Your task to perform on an android device: toggle translation in the chrome app Image 0: 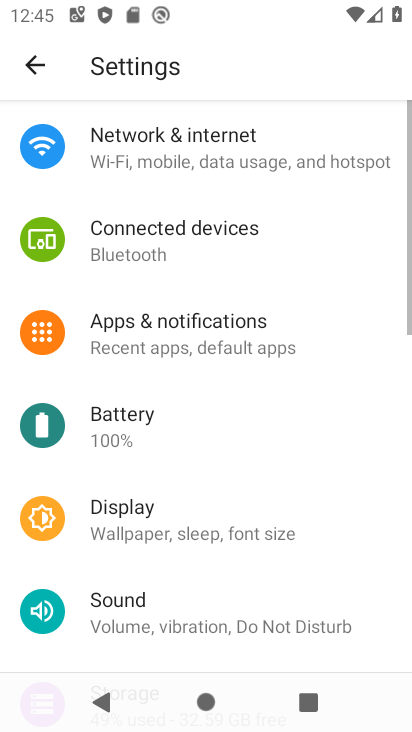
Step 0: press home button
Your task to perform on an android device: toggle translation in the chrome app Image 1: 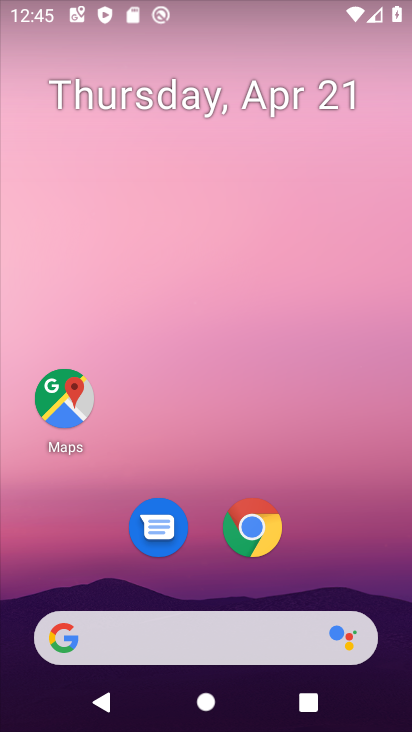
Step 1: drag from (318, 553) to (330, 59)
Your task to perform on an android device: toggle translation in the chrome app Image 2: 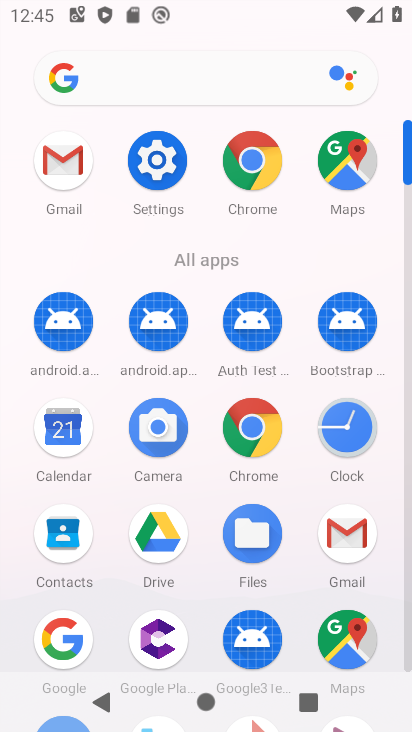
Step 2: click (240, 436)
Your task to perform on an android device: toggle translation in the chrome app Image 3: 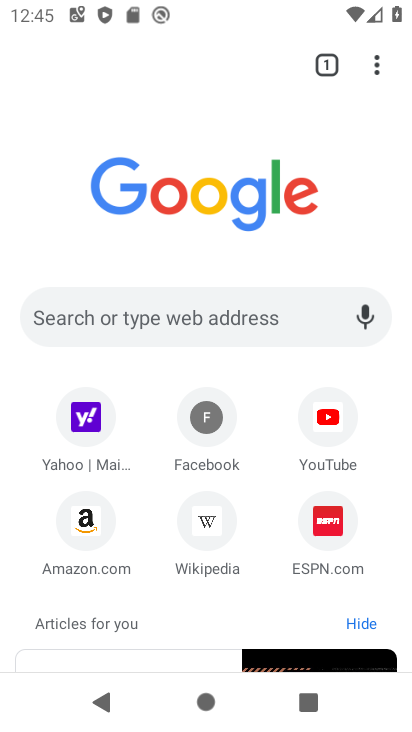
Step 3: click (376, 61)
Your task to perform on an android device: toggle translation in the chrome app Image 4: 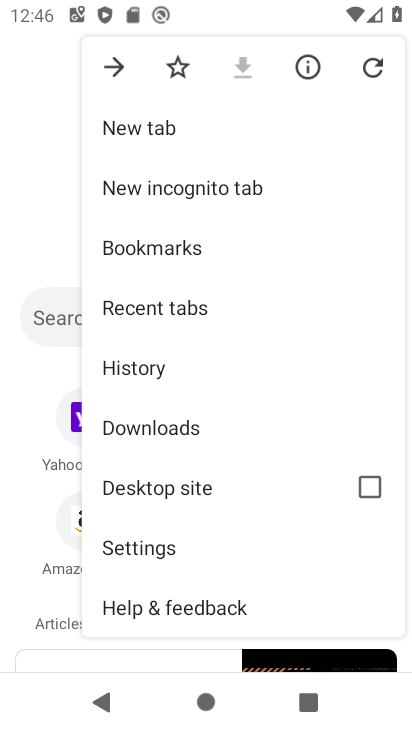
Step 4: click (164, 556)
Your task to perform on an android device: toggle translation in the chrome app Image 5: 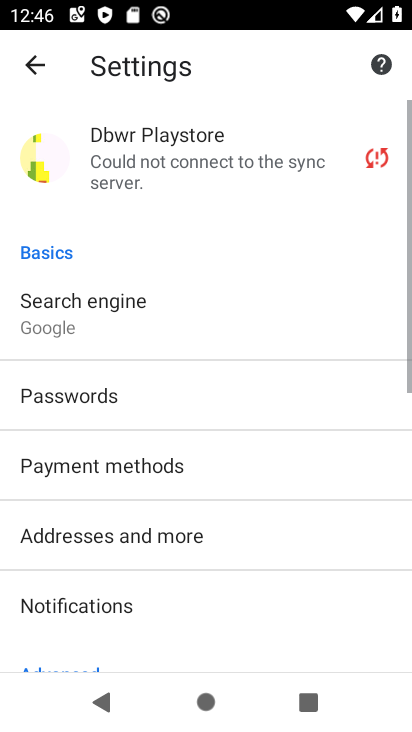
Step 5: drag from (278, 573) to (299, 401)
Your task to perform on an android device: toggle translation in the chrome app Image 6: 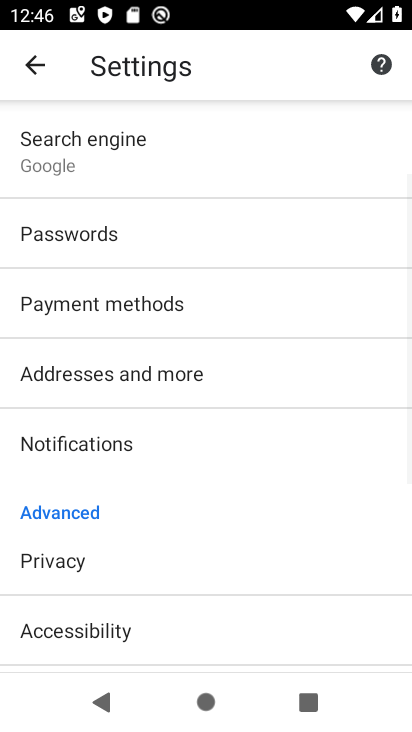
Step 6: drag from (325, 560) to (320, 406)
Your task to perform on an android device: toggle translation in the chrome app Image 7: 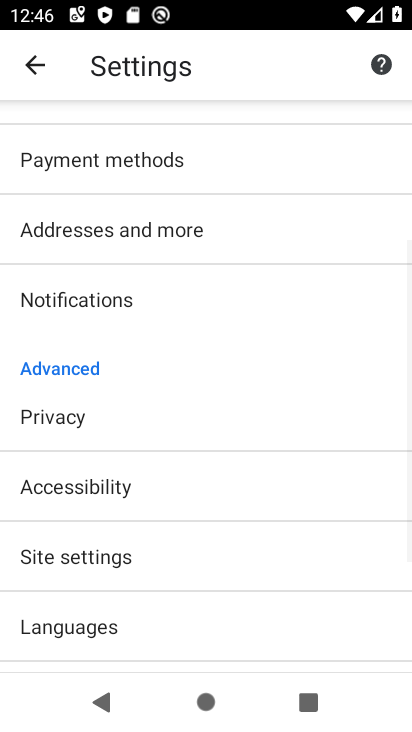
Step 7: drag from (336, 602) to (349, 440)
Your task to perform on an android device: toggle translation in the chrome app Image 8: 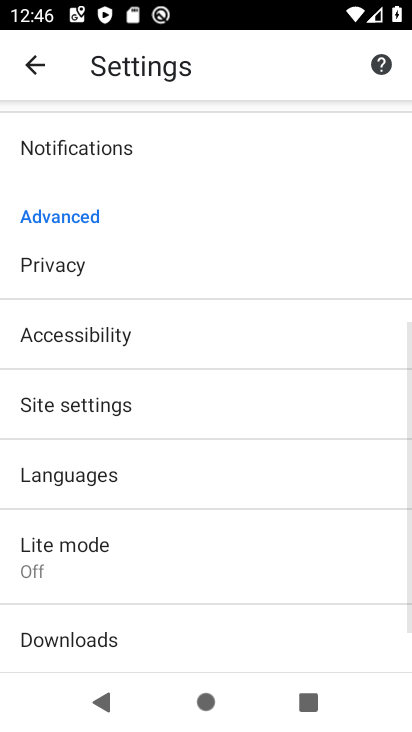
Step 8: drag from (344, 599) to (346, 434)
Your task to perform on an android device: toggle translation in the chrome app Image 9: 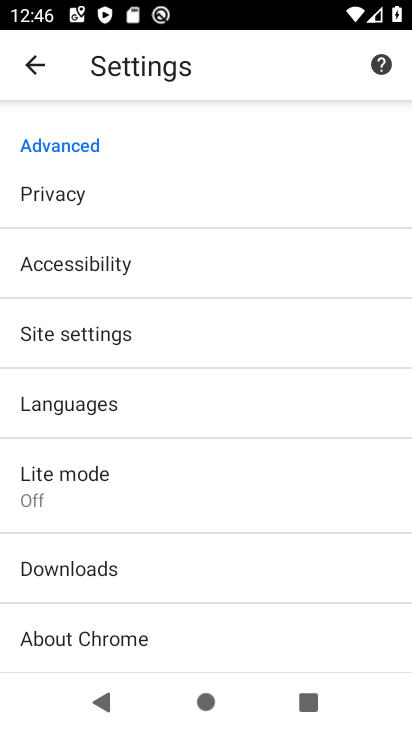
Step 9: drag from (338, 615) to (332, 423)
Your task to perform on an android device: toggle translation in the chrome app Image 10: 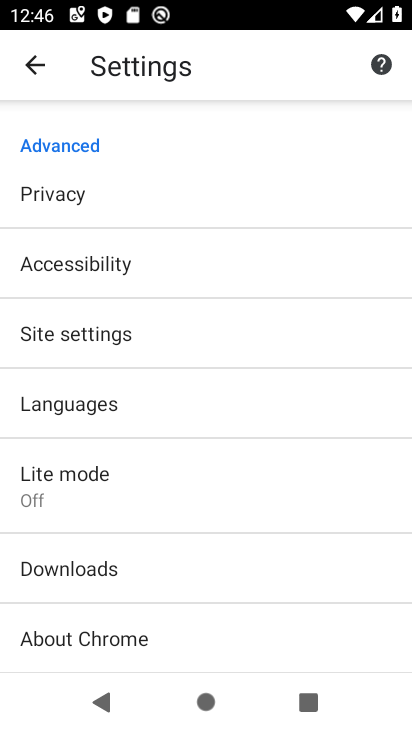
Step 10: click (317, 398)
Your task to perform on an android device: toggle translation in the chrome app Image 11: 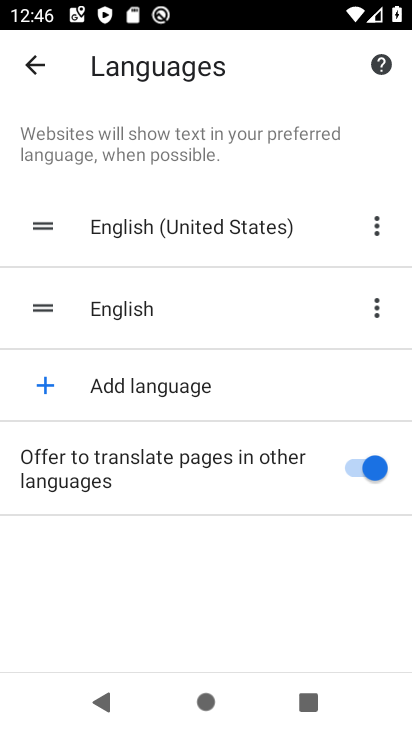
Step 11: click (353, 463)
Your task to perform on an android device: toggle translation in the chrome app Image 12: 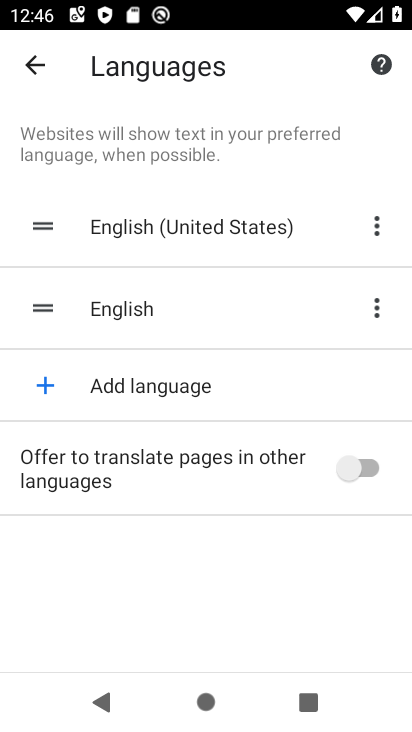
Step 12: task complete